Your task to perform on an android device: see sites visited before in the chrome app Image 0: 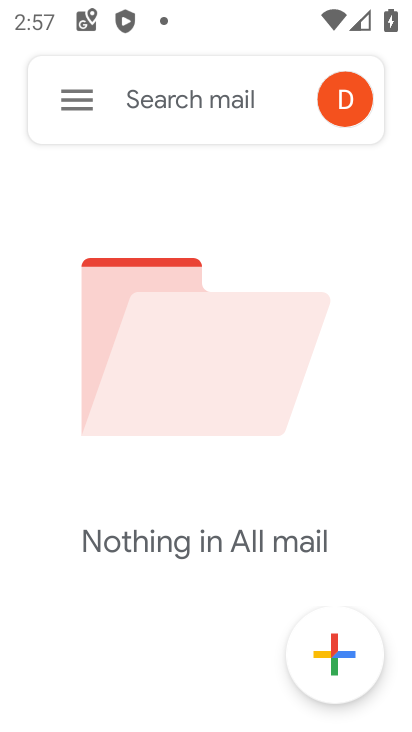
Step 0: press back button
Your task to perform on an android device: see sites visited before in the chrome app Image 1: 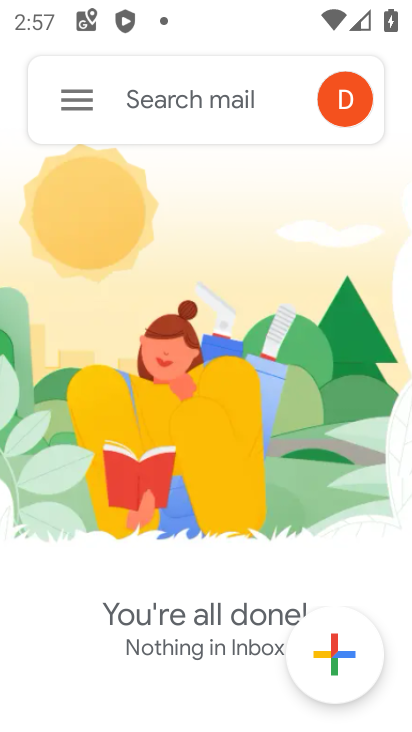
Step 1: press back button
Your task to perform on an android device: see sites visited before in the chrome app Image 2: 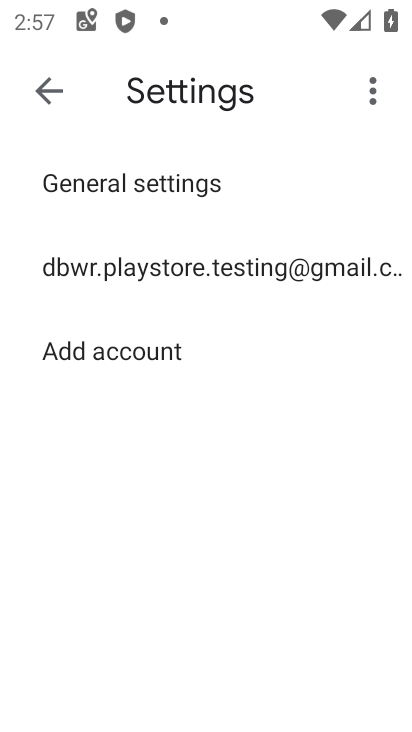
Step 2: press back button
Your task to perform on an android device: see sites visited before in the chrome app Image 3: 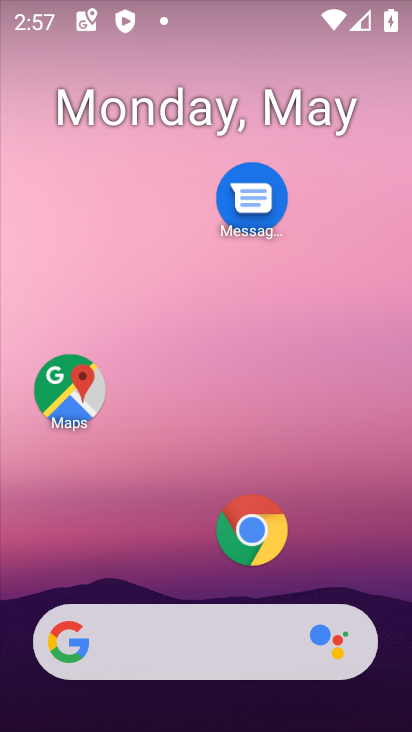
Step 3: click (250, 536)
Your task to perform on an android device: see sites visited before in the chrome app Image 4: 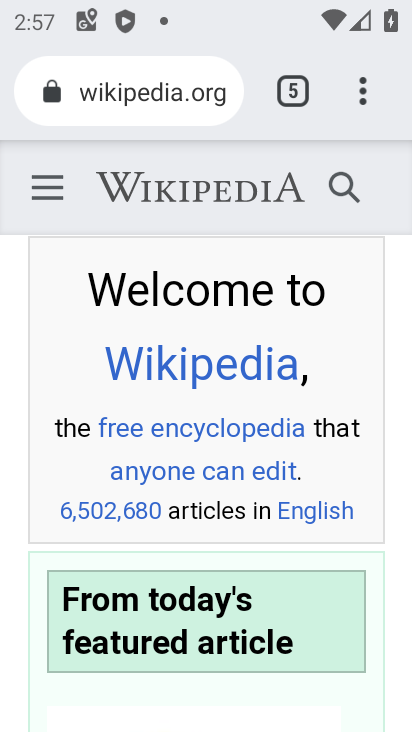
Step 4: task complete